Your task to perform on an android device: change keyboard looks Image 0: 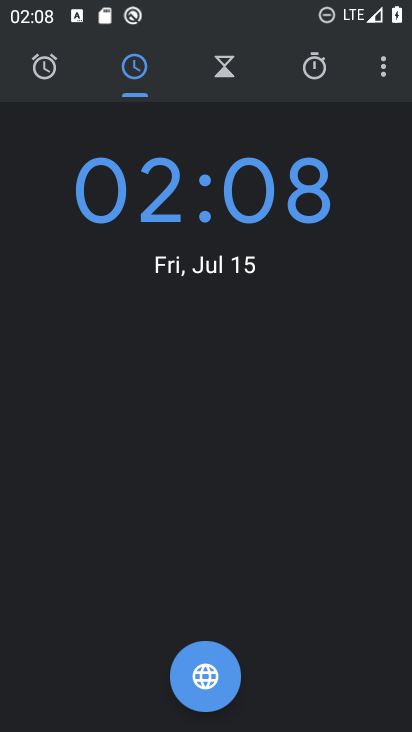
Step 0: press home button
Your task to perform on an android device: change keyboard looks Image 1: 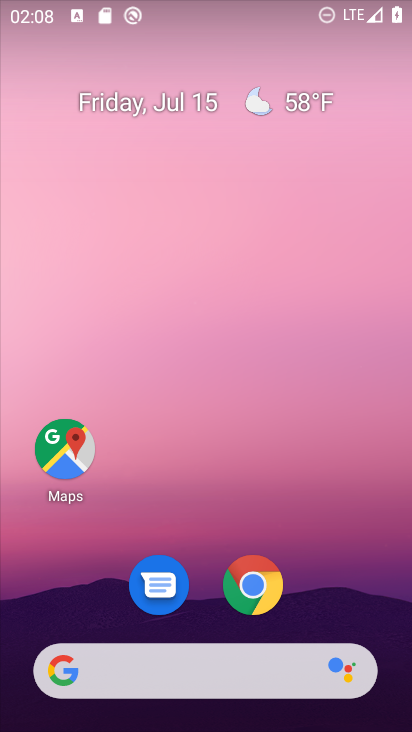
Step 1: drag from (302, 572) to (295, 73)
Your task to perform on an android device: change keyboard looks Image 2: 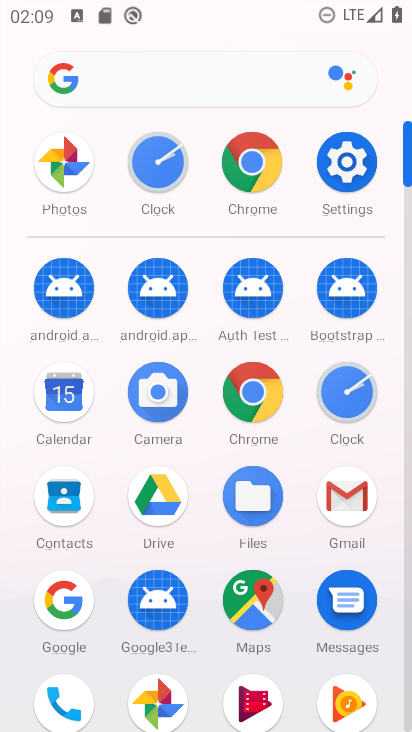
Step 2: click (340, 159)
Your task to perform on an android device: change keyboard looks Image 3: 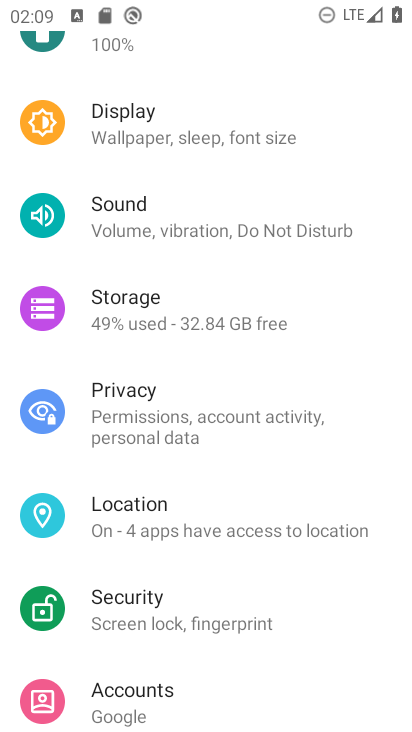
Step 3: drag from (266, 582) to (237, 100)
Your task to perform on an android device: change keyboard looks Image 4: 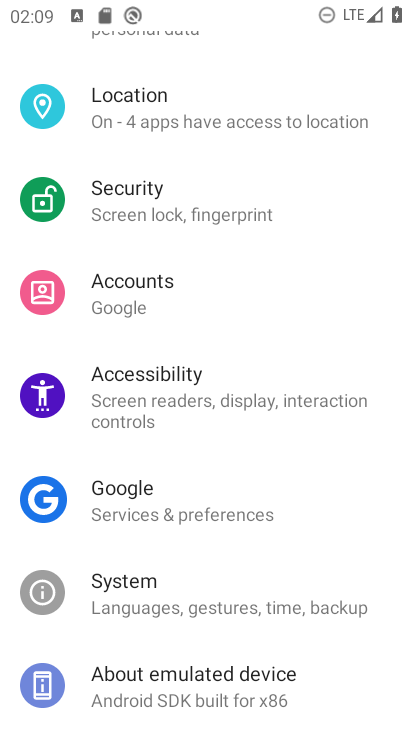
Step 4: click (209, 595)
Your task to perform on an android device: change keyboard looks Image 5: 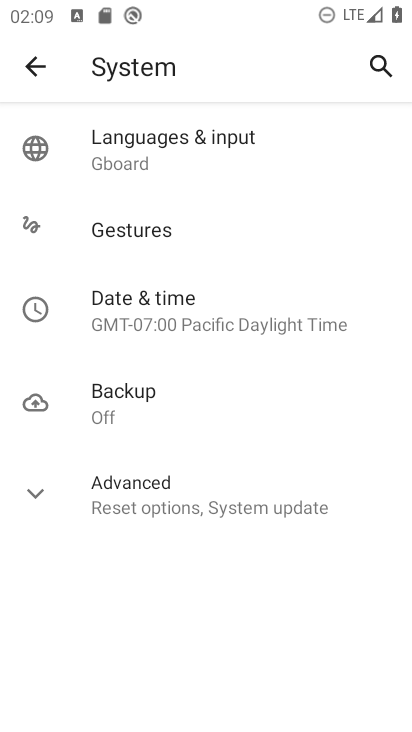
Step 5: click (150, 138)
Your task to perform on an android device: change keyboard looks Image 6: 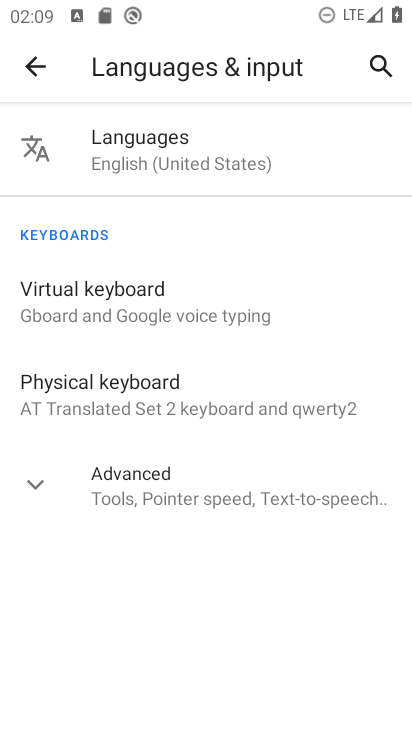
Step 6: click (132, 292)
Your task to perform on an android device: change keyboard looks Image 7: 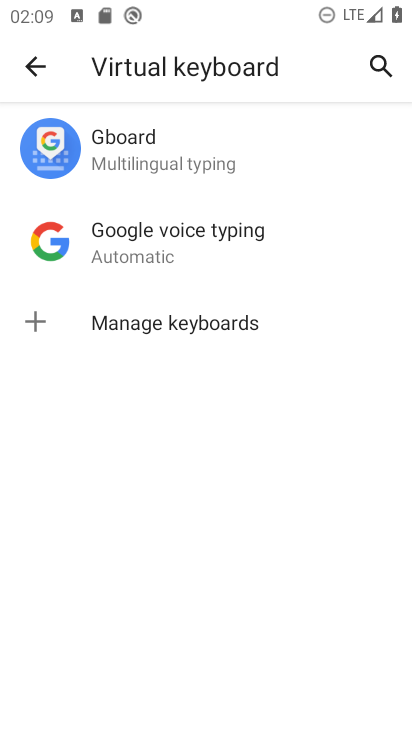
Step 7: click (124, 157)
Your task to perform on an android device: change keyboard looks Image 8: 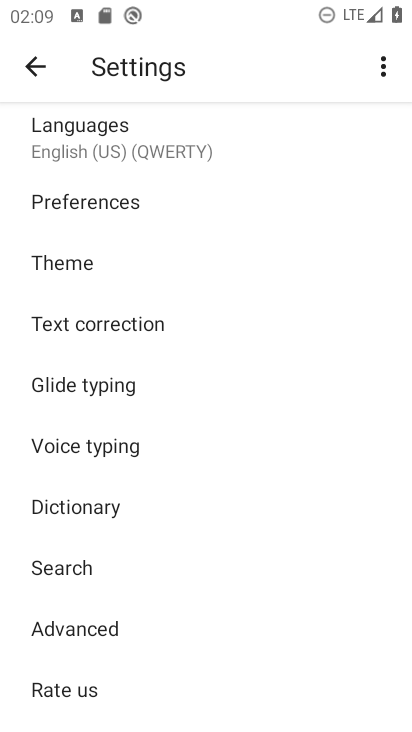
Step 8: click (85, 256)
Your task to perform on an android device: change keyboard looks Image 9: 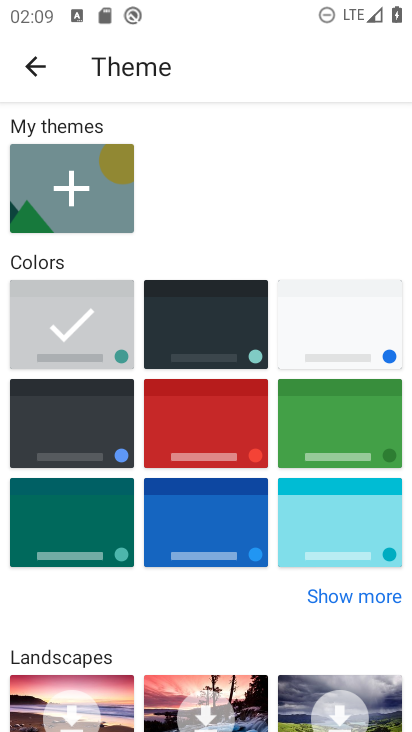
Step 9: click (227, 418)
Your task to perform on an android device: change keyboard looks Image 10: 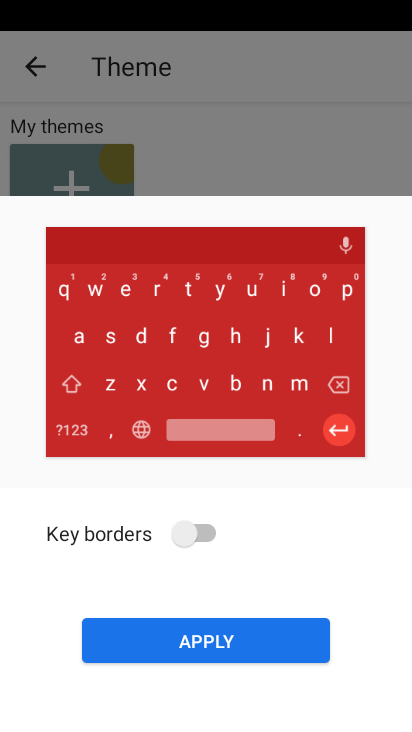
Step 10: click (190, 524)
Your task to perform on an android device: change keyboard looks Image 11: 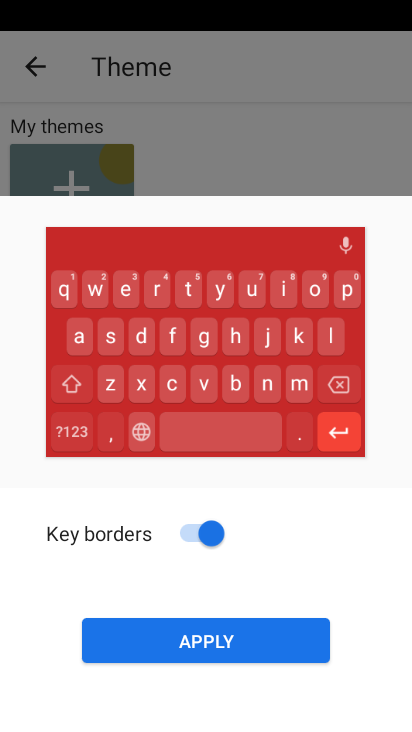
Step 11: click (221, 637)
Your task to perform on an android device: change keyboard looks Image 12: 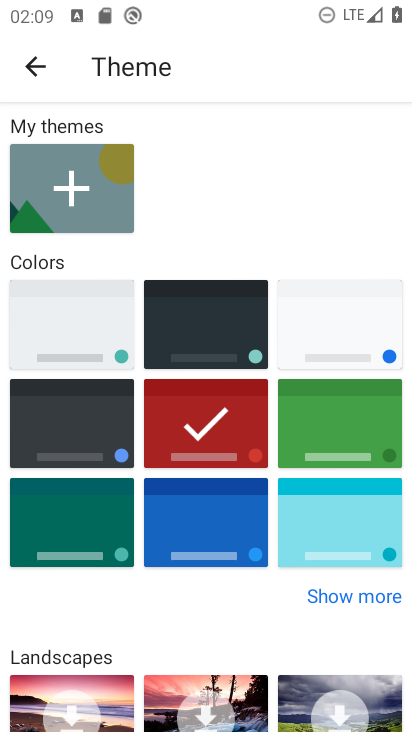
Step 12: task complete